Your task to perform on an android device: Go to accessibility settings Image 0: 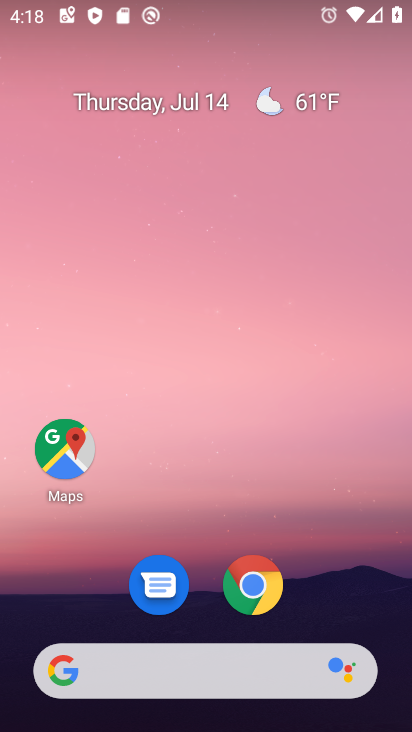
Step 0: drag from (223, 526) to (275, 11)
Your task to perform on an android device: Go to accessibility settings Image 1: 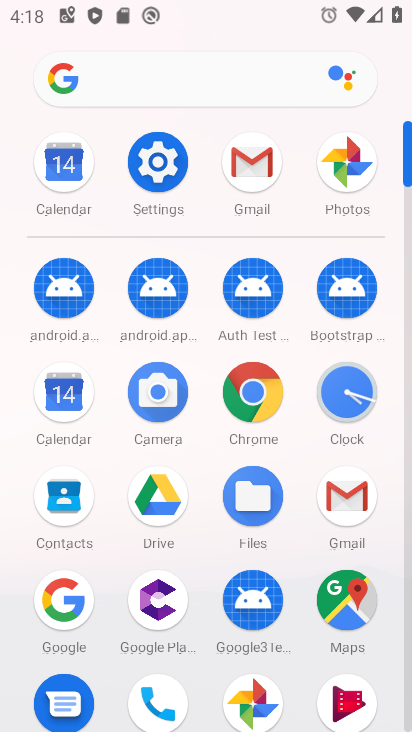
Step 1: click (157, 162)
Your task to perform on an android device: Go to accessibility settings Image 2: 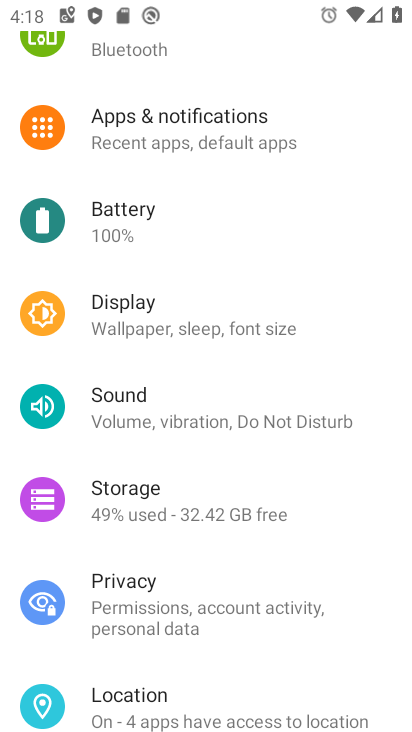
Step 2: drag from (257, 655) to (259, 48)
Your task to perform on an android device: Go to accessibility settings Image 3: 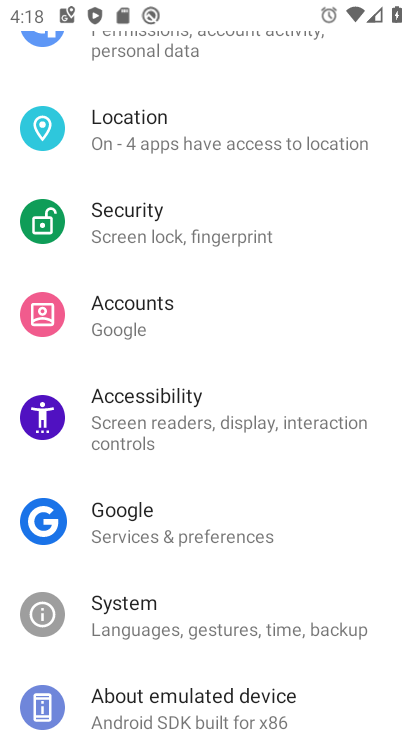
Step 3: click (246, 408)
Your task to perform on an android device: Go to accessibility settings Image 4: 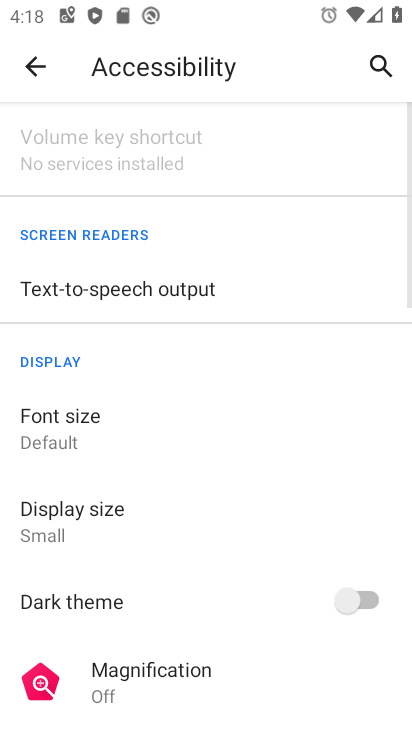
Step 4: task complete